Your task to perform on an android device: turn on notifications settings in the gmail app Image 0: 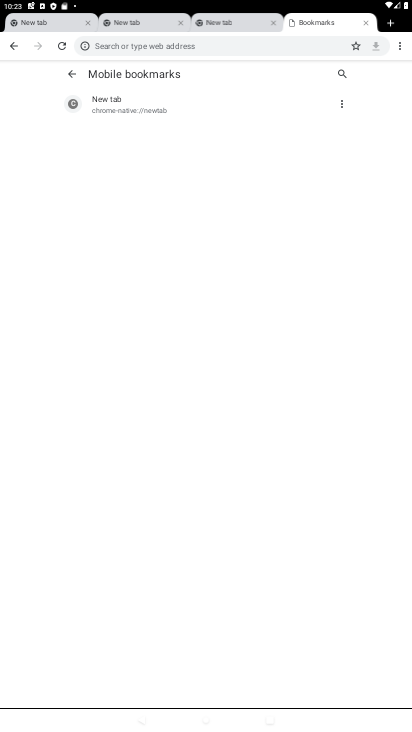
Step 0: press home button
Your task to perform on an android device: turn on notifications settings in the gmail app Image 1: 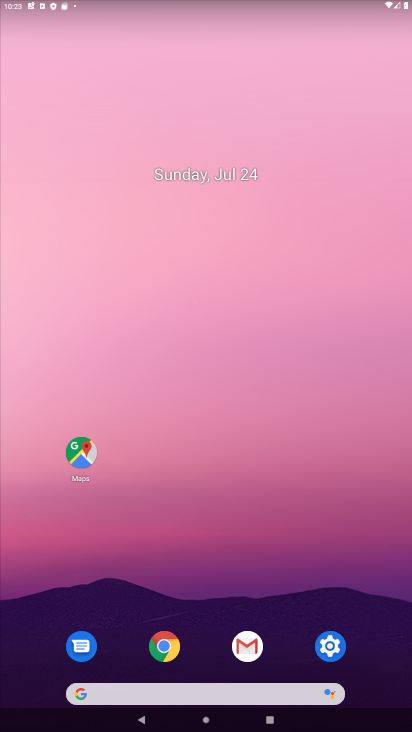
Step 1: click (255, 637)
Your task to perform on an android device: turn on notifications settings in the gmail app Image 2: 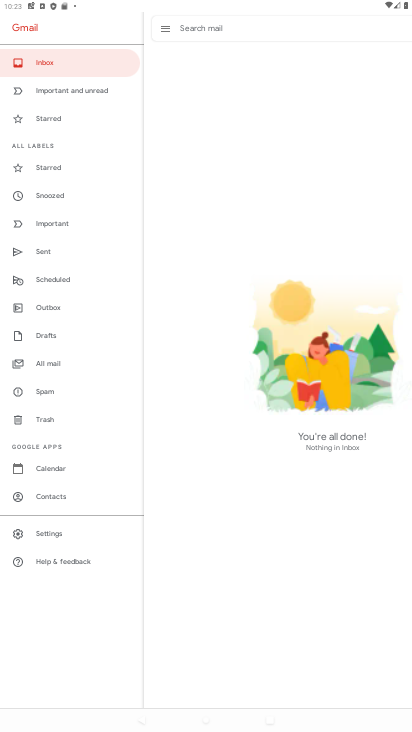
Step 2: click (60, 530)
Your task to perform on an android device: turn on notifications settings in the gmail app Image 3: 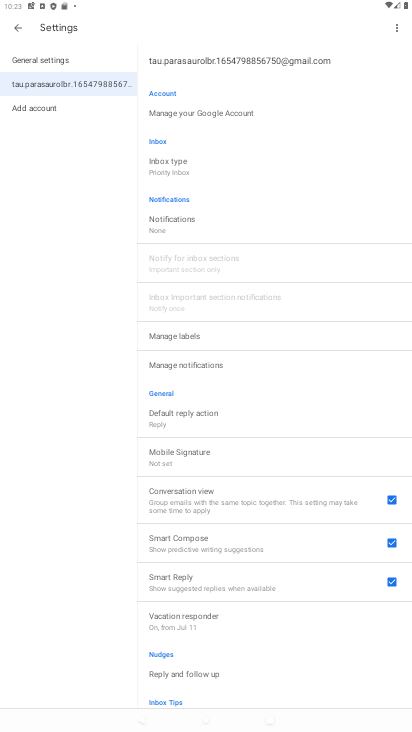
Step 3: click (184, 225)
Your task to perform on an android device: turn on notifications settings in the gmail app Image 4: 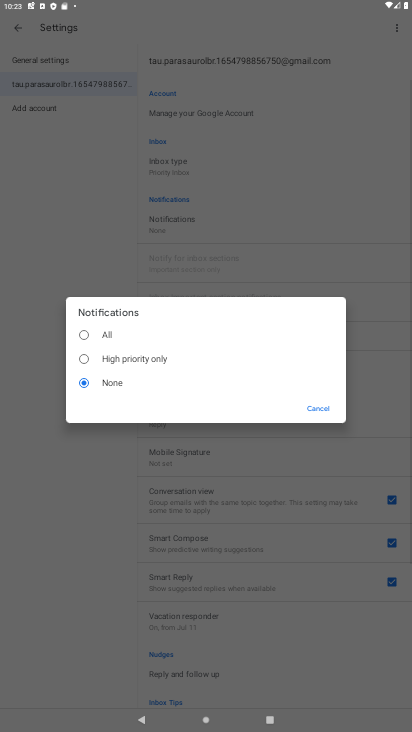
Step 4: click (122, 329)
Your task to perform on an android device: turn on notifications settings in the gmail app Image 5: 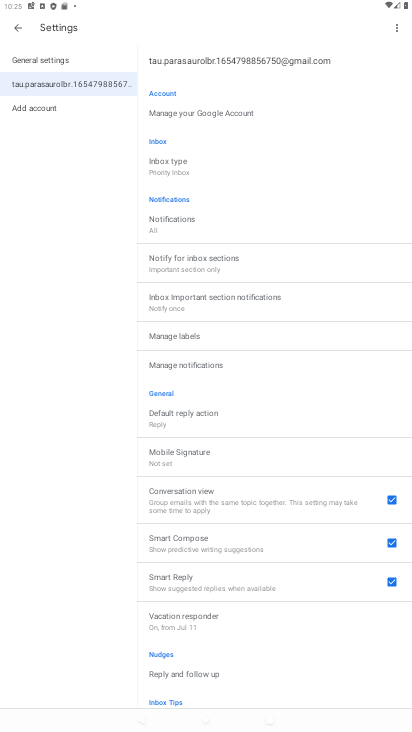
Step 5: task complete